Your task to perform on an android device: Go to settings Image 0: 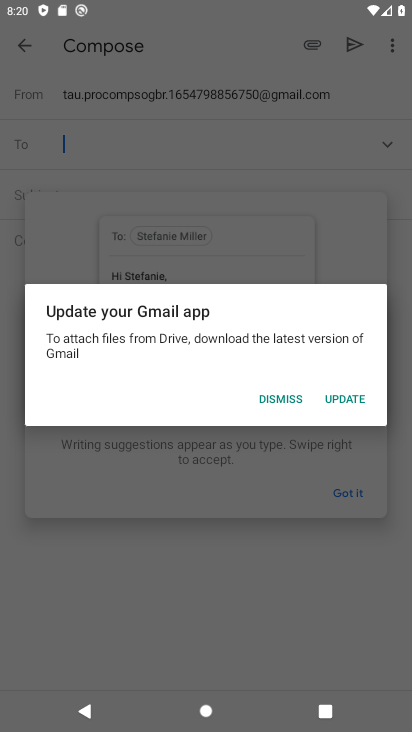
Step 0: press home button
Your task to perform on an android device: Go to settings Image 1: 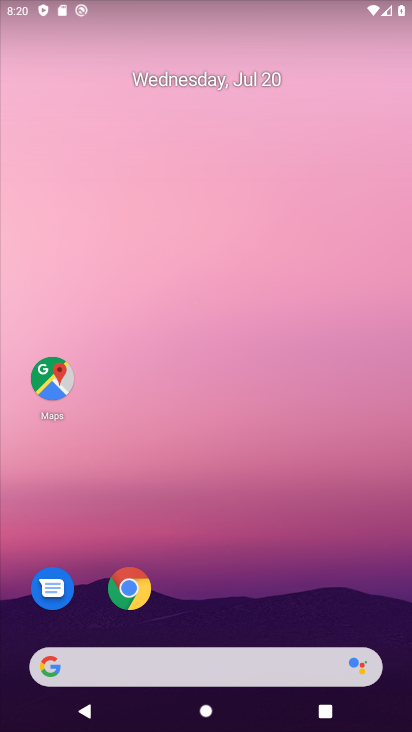
Step 1: drag from (201, 621) to (250, 71)
Your task to perform on an android device: Go to settings Image 2: 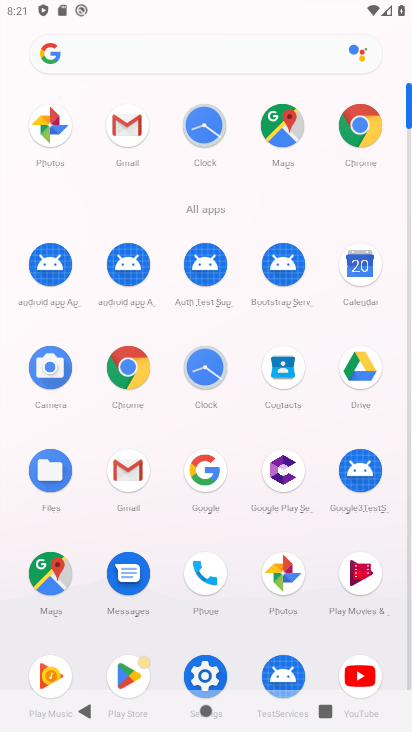
Step 2: click (198, 663)
Your task to perform on an android device: Go to settings Image 3: 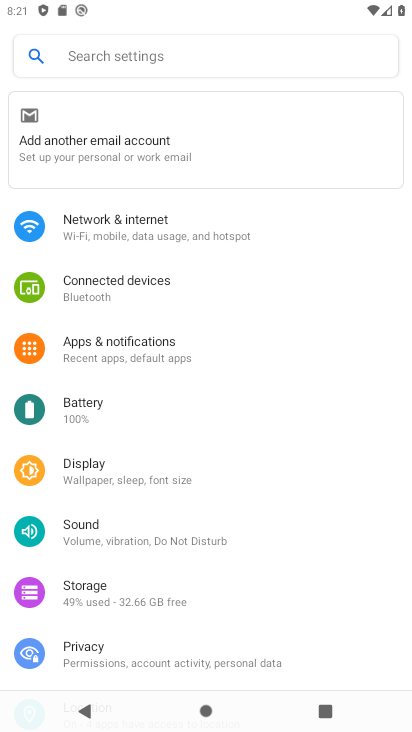
Step 3: task complete